Your task to perform on an android device: install app "Google Photos" Image 0: 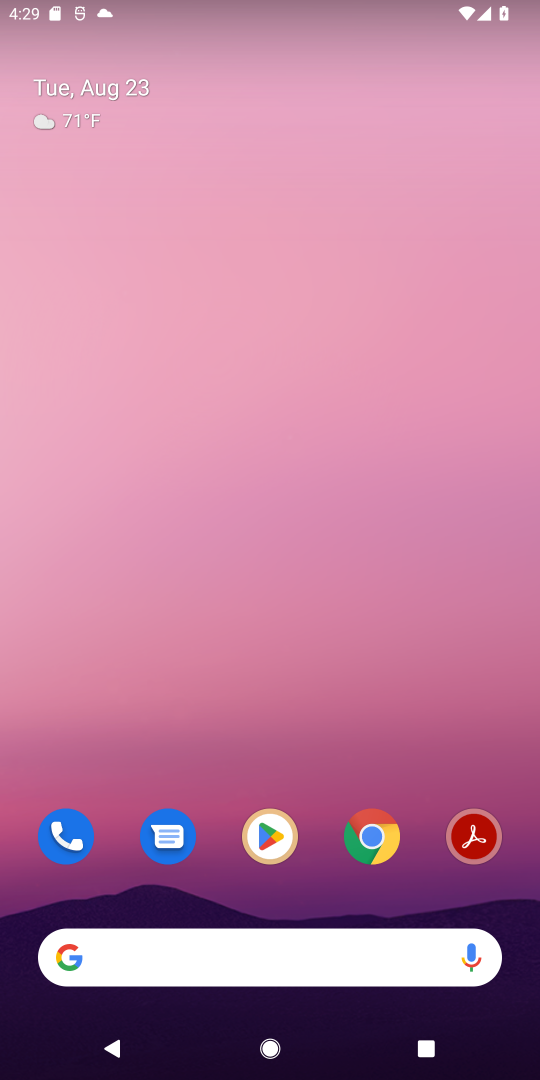
Step 0: click (271, 834)
Your task to perform on an android device: install app "Google Photos" Image 1: 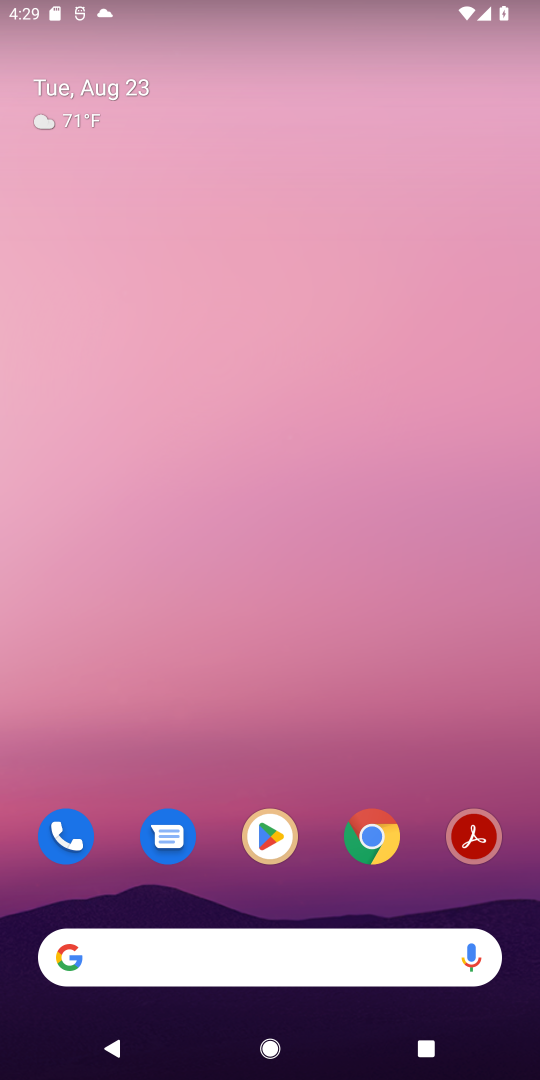
Step 1: click (264, 834)
Your task to perform on an android device: install app "Google Photos" Image 2: 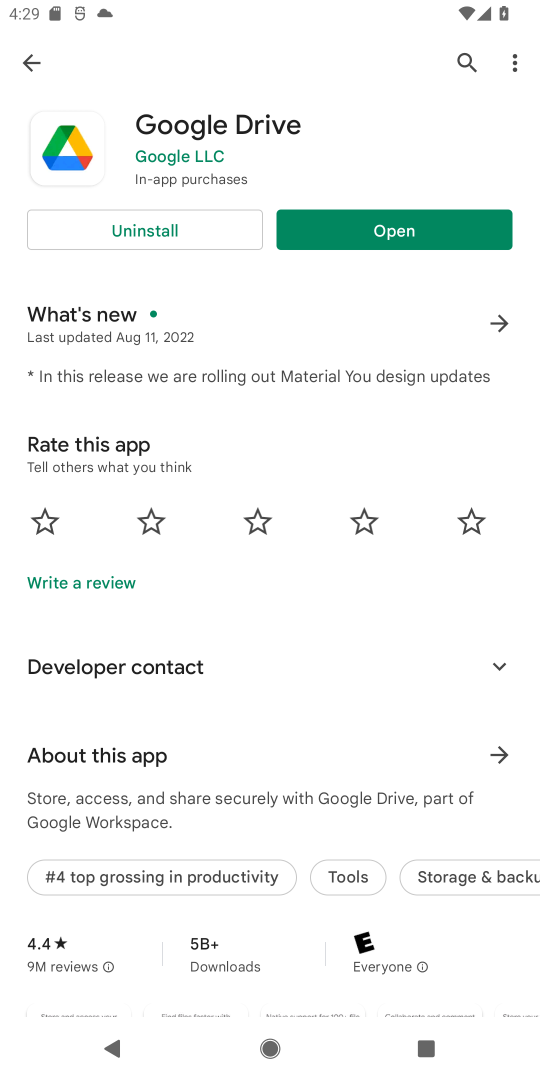
Step 2: click (463, 63)
Your task to perform on an android device: install app "Google Photos" Image 3: 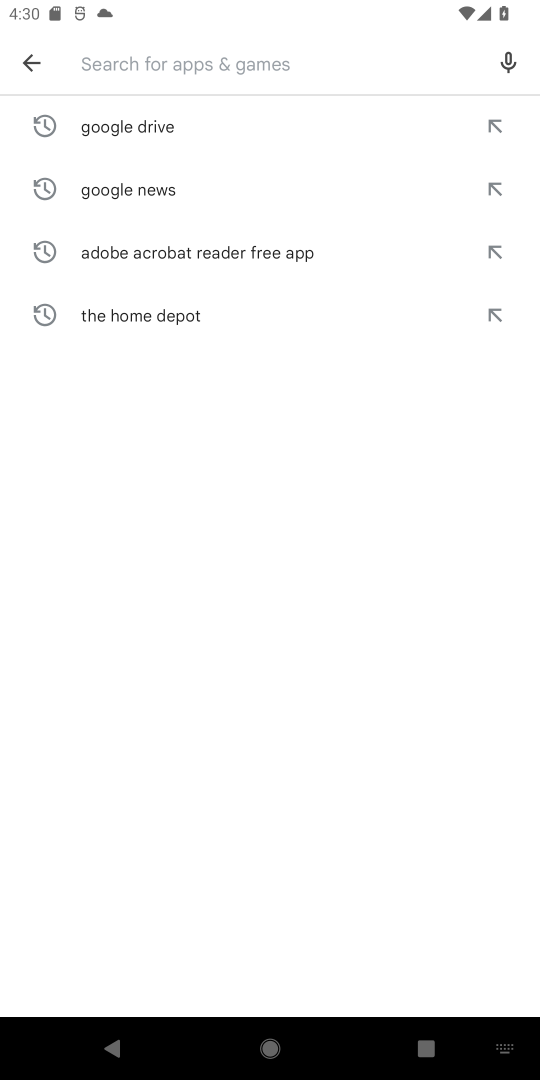
Step 3: type "Google Photos"
Your task to perform on an android device: install app "Google Photos" Image 4: 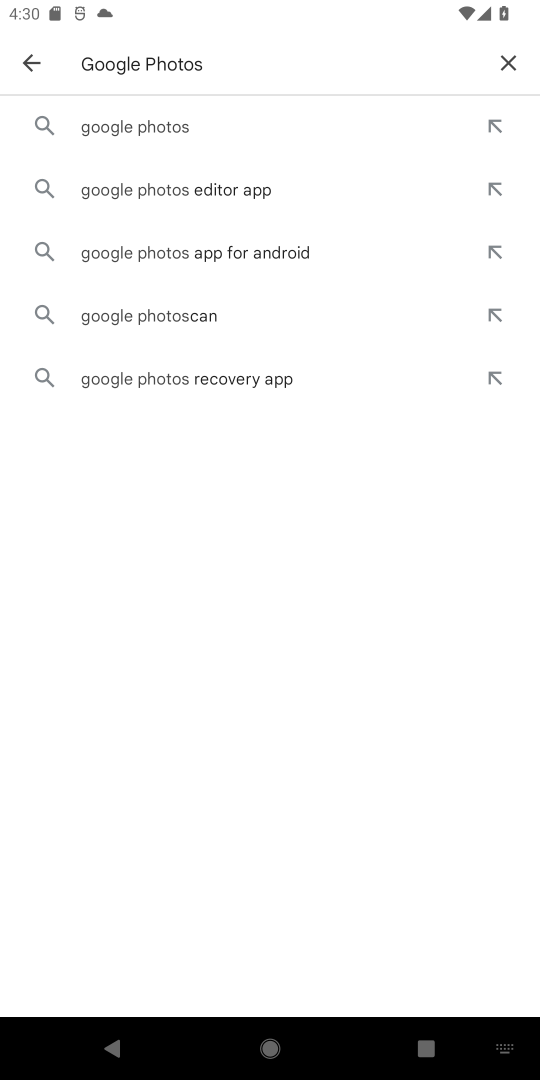
Step 4: click (115, 126)
Your task to perform on an android device: install app "Google Photos" Image 5: 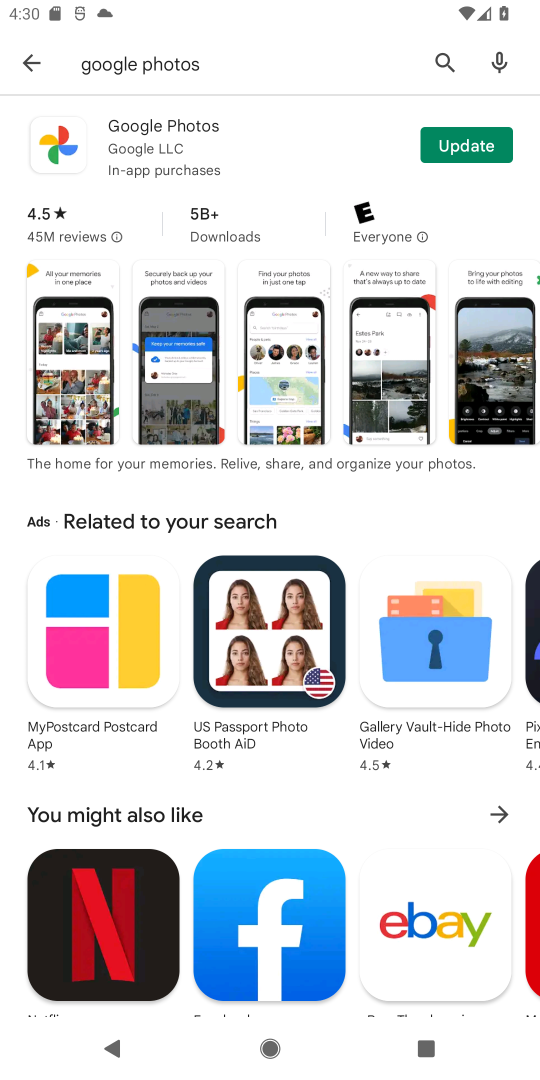
Step 5: click (119, 122)
Your task to perform on an android device: install app "Google Photos" Image 6: 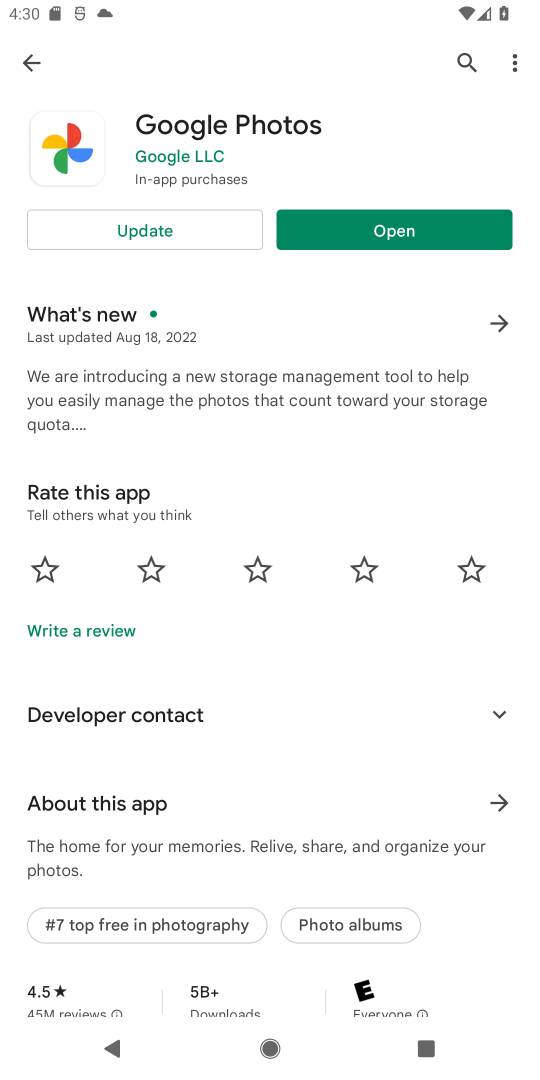
Step 6: task complete